Your task to perform on an android device: Turn off the flashlight Image 0: 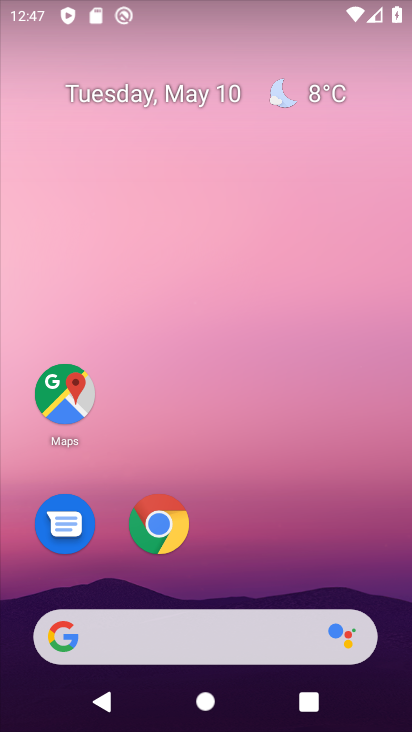
Step 0: drag from (250, 533) to (289, 38)
Your task to perform on an android device: Turn off the flashlight Image 1: 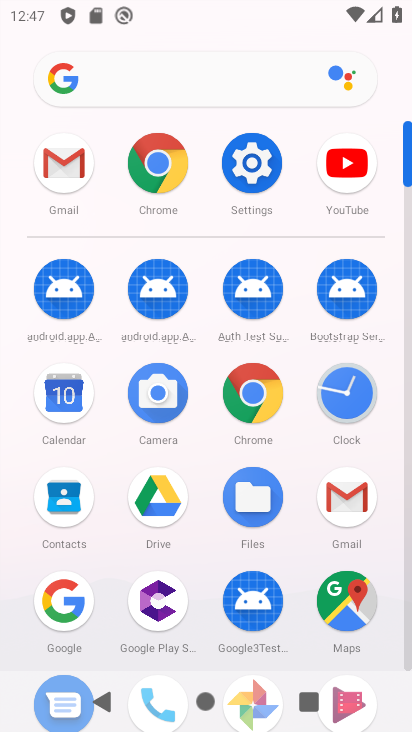
Step 1: click (254, 160)
Your task to perform on an android device: Turn off the flashlight Image 2: 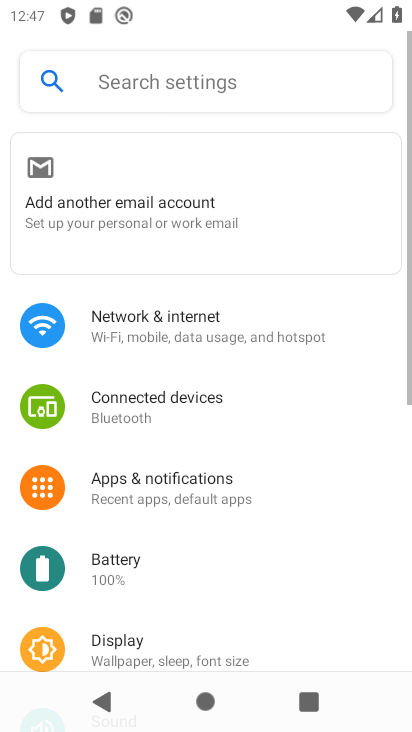
Step 2: click (209, 76)
Your task to perform on an android device: Turn off the flashlight Image 3: 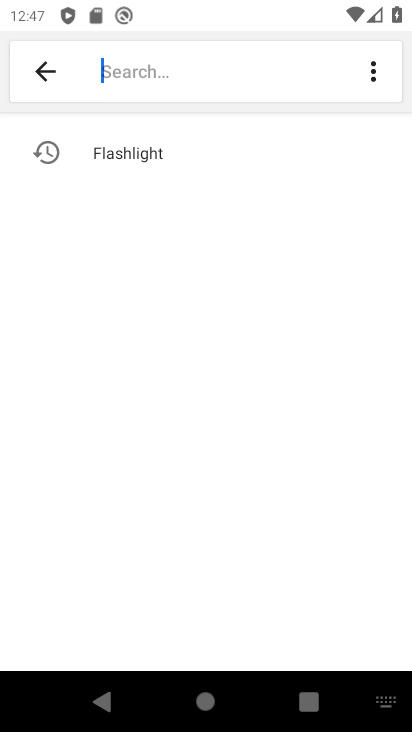
Step 3: click (146, 150)
Your task to perform on an android device: Turn off the flashlight Image 4: 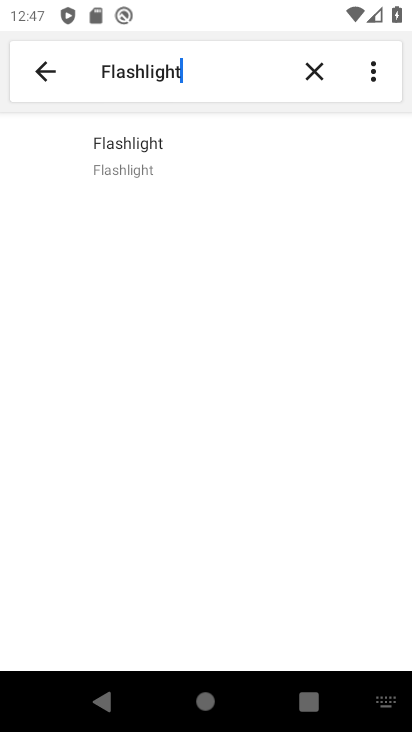
Step 4: click (149, 152)
Your task to perform on an android device: Turn off the flashlight Image 5: 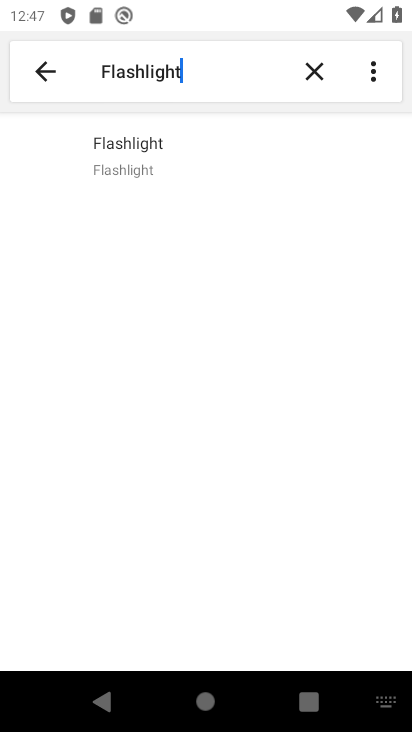
Step 5: task complete